Your task to perform on an android device: Open the calendar app, open the side menu, and click the "Day" option Image 0: 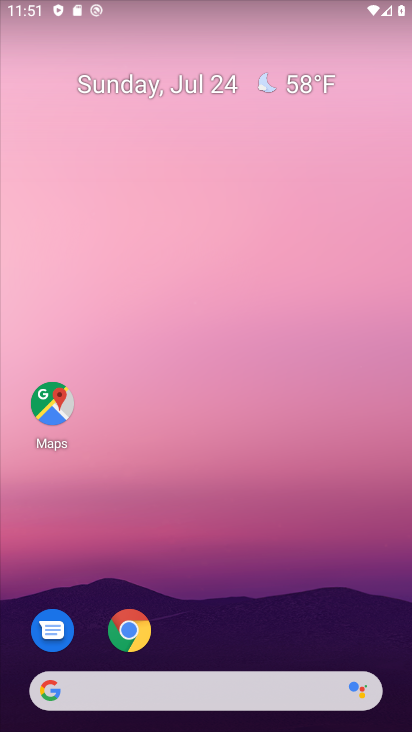
Step 0: drag from (313, 635) to (237, 21)
Your task to perform on an android device: Open the calendar app, open the side menu, and click the "Day" option Image 1: 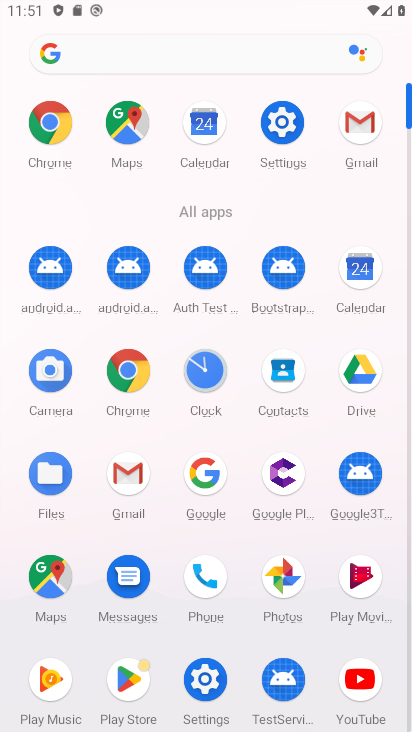
Step 1: click (210, 133)
Your task to perform on an android device: Open the calendar app, open the side menu, and click the "Day" option Image 2: 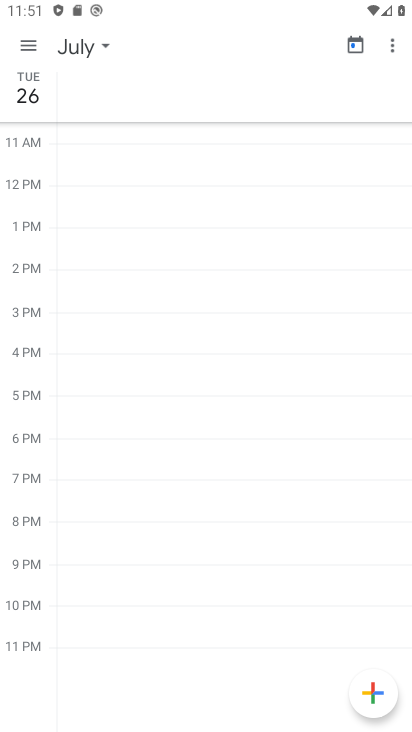
Step 2: click (28, 43)
Your task to perform on an android device: Open the calendar app, open the side menu, and click the "Day" option Image 3: 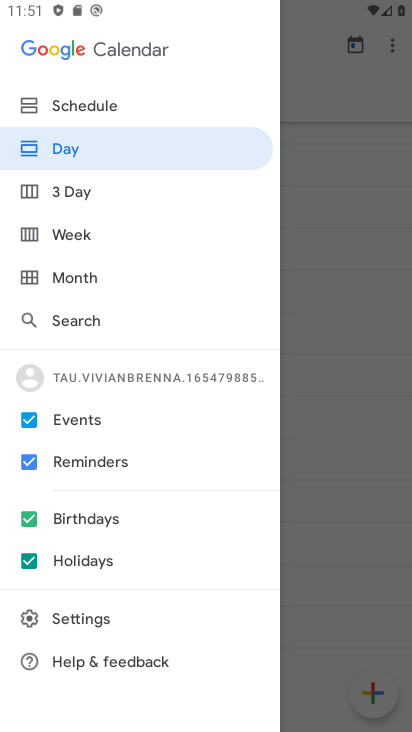
Step 3: click (64, 157)
Your task to perform on an android device: Open the calendar app, open the side menu, and click the "Day" option Image 4: 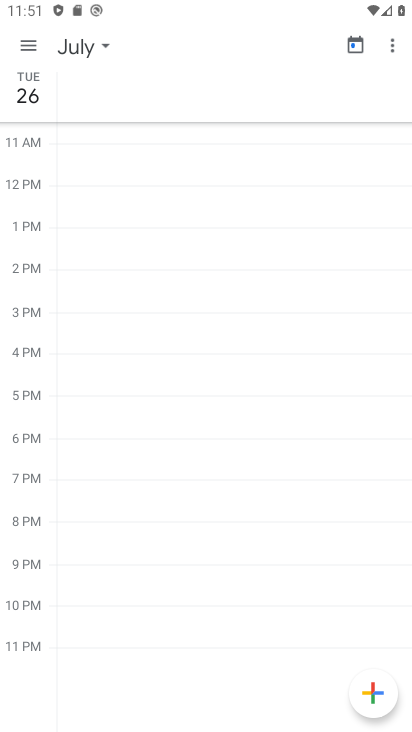
Step 4: task complete